Your task to perform on an android device: Add beats solo 3 to the cart on amazon.com Image 0: 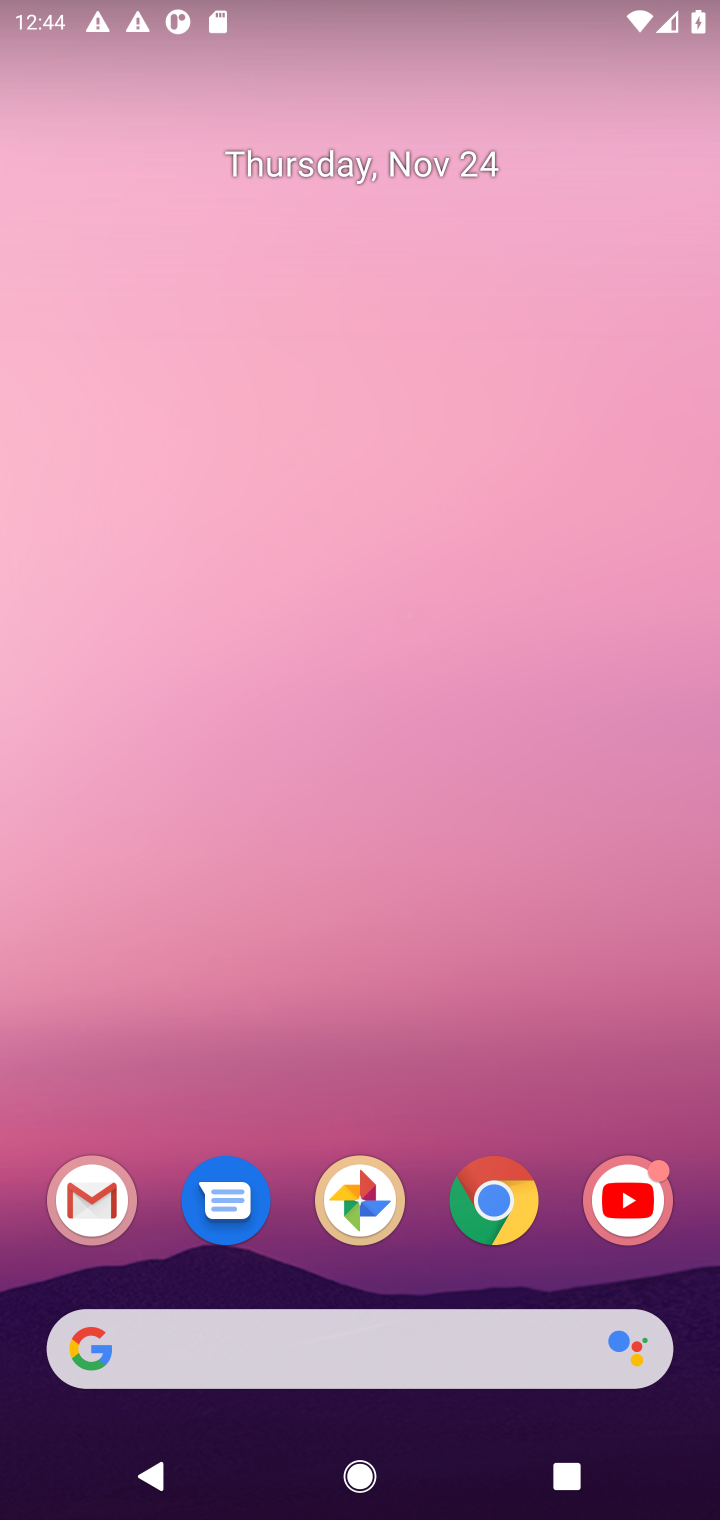
Step 0: click (423, 1384)
Your task to perform on an android device: Add beats solo 3 to the cart on amazon.com Image 1: 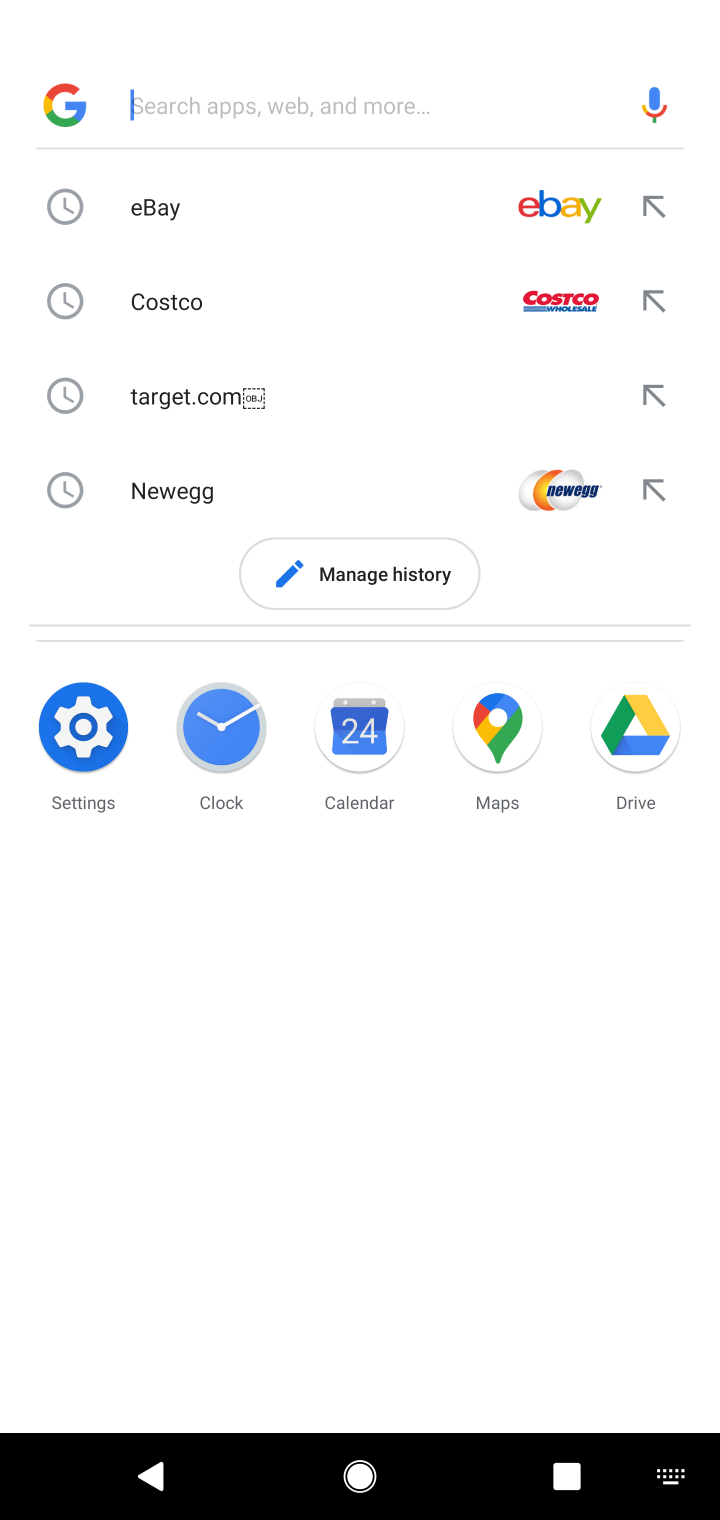
Step 1: type "amazone.com"
Your task to perform on an android device: Add beats solo 3 to the cart on amazon.com Image 2: 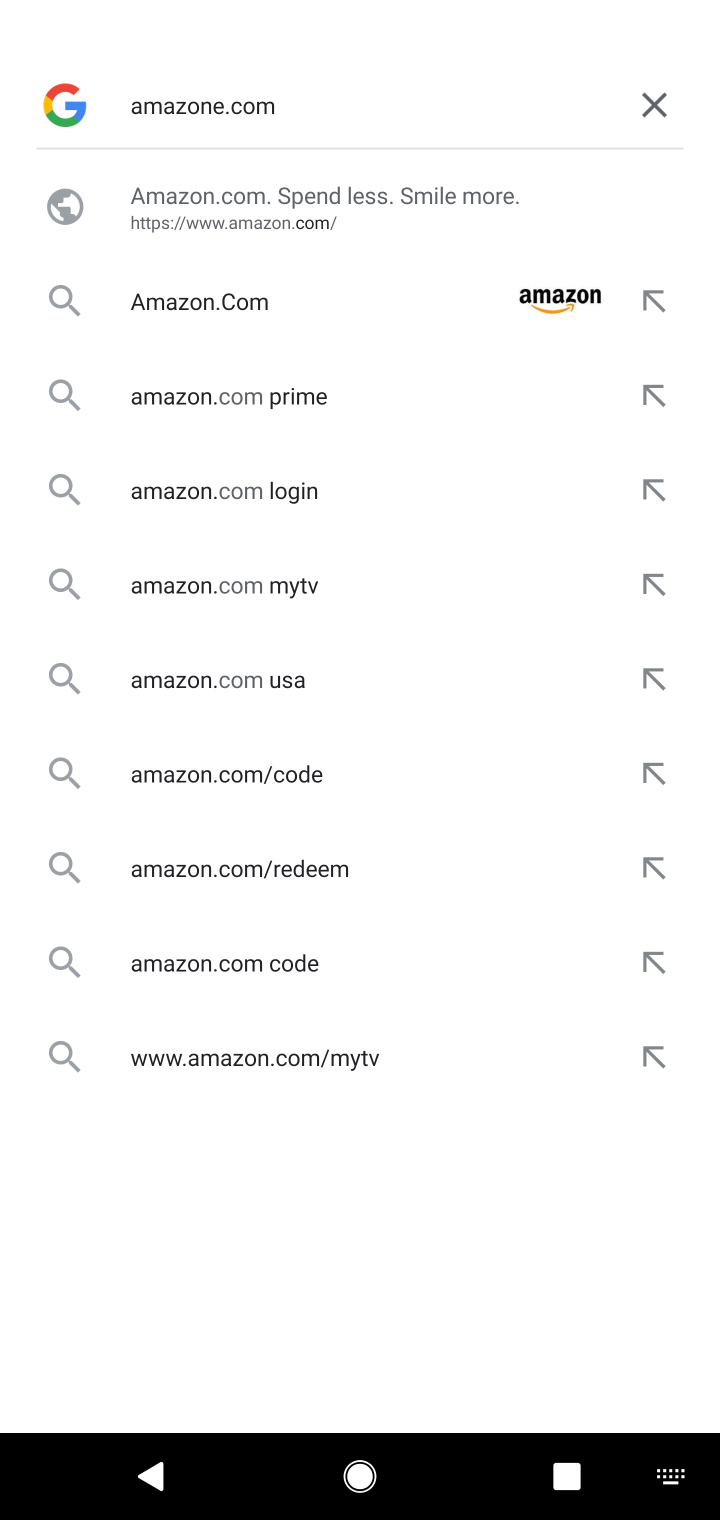
Step 2: click (315, 201)
Your task to perform on an android device: Add beats solo 3 to the cart on amazon.com Image 3: 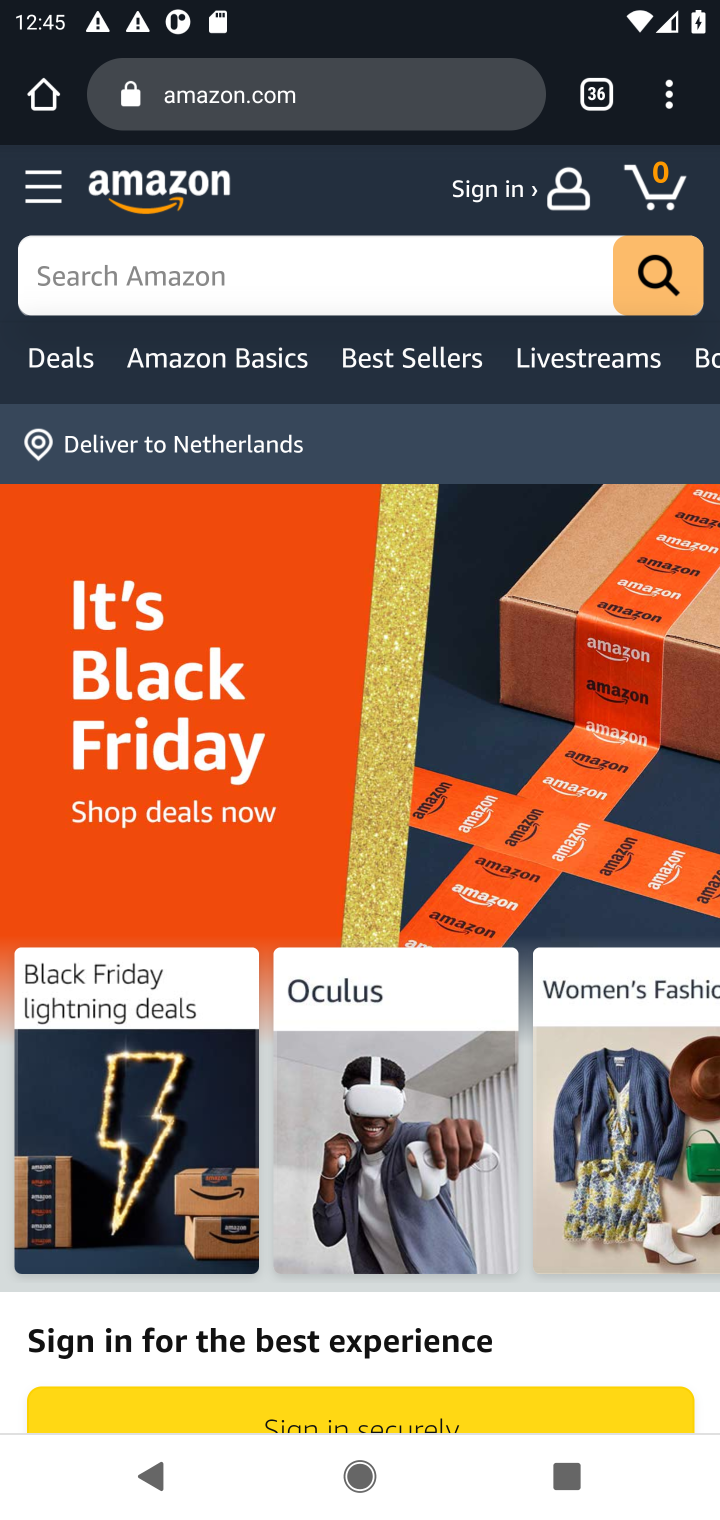
Step 3: task complete